Your task to perform on an android device: Open the stopwatch Image 0: 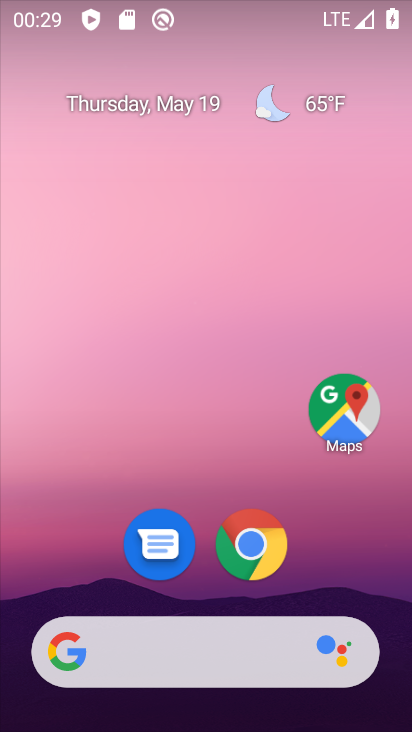
Step 0: drag from (387, 588) to (353, 161)
Your task to perform on an android device: Open the stopwatch Image 1: 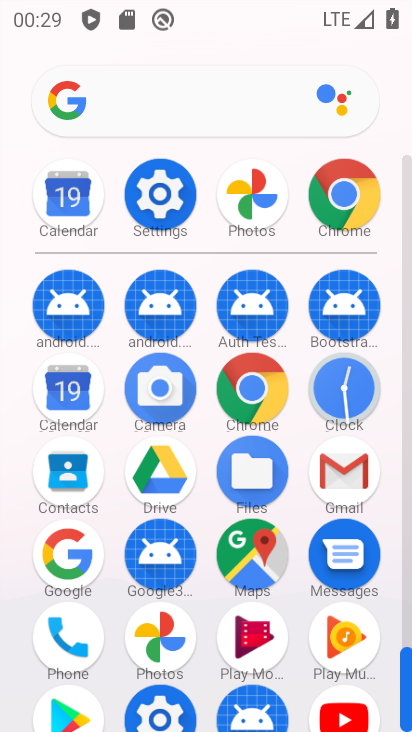
Step 1: click (365, 381)
Your task to perform on an android device: Open the stopwatch Image 2: 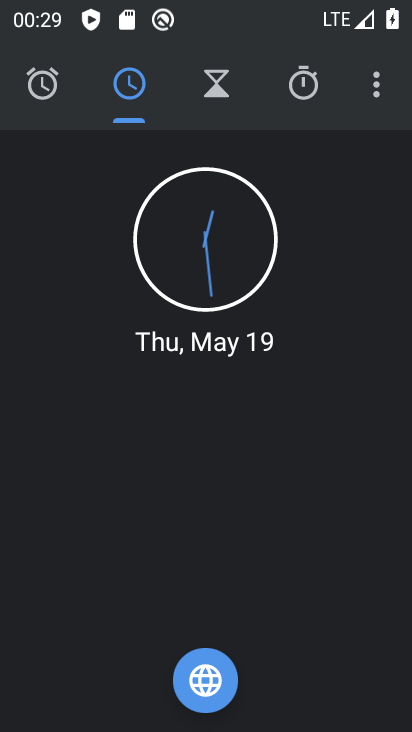
Step 2: click (296, 98)
Your task to perform on an android device: Open the stopwatch Image 3: 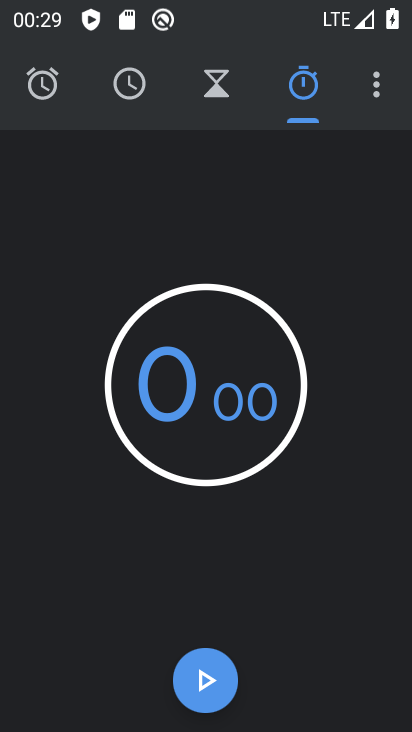
Step 3: task complete